Your task to perform on an android device: What's the weather going to be tomorrow? Image 0: 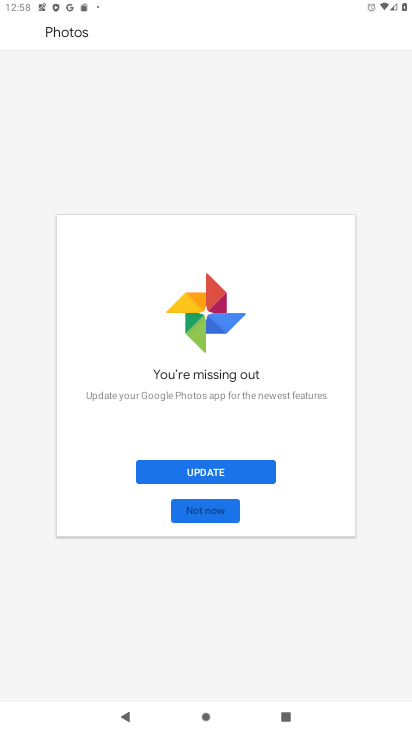
Step 0: press home button
Your task to perform on an android device: What's the weather going to be tomorrow? Image 1: 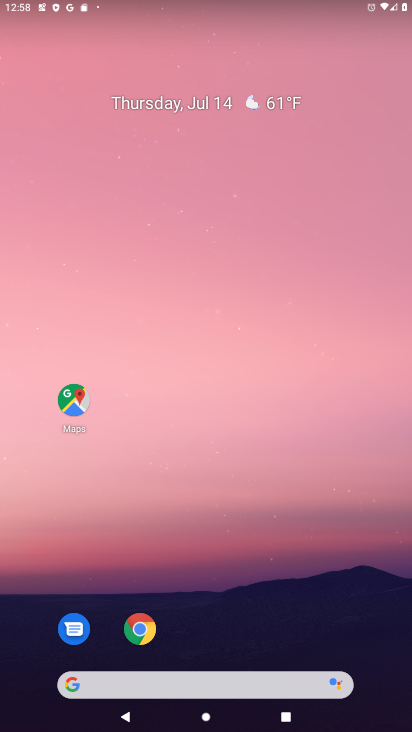
Step 1: click (285, 97)
Your task to perform on an android device: What's the weather going to be tomorrow? Image 2: 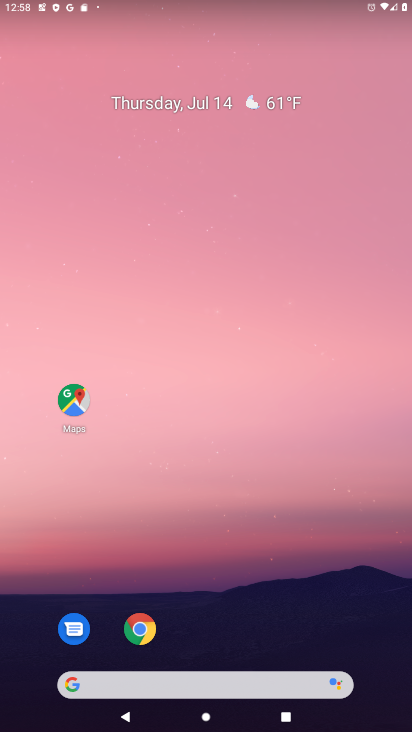
Step 2: click (285, 97)
Your task to perform on an android device: What's the weather going to be tomorrow? Image 3: 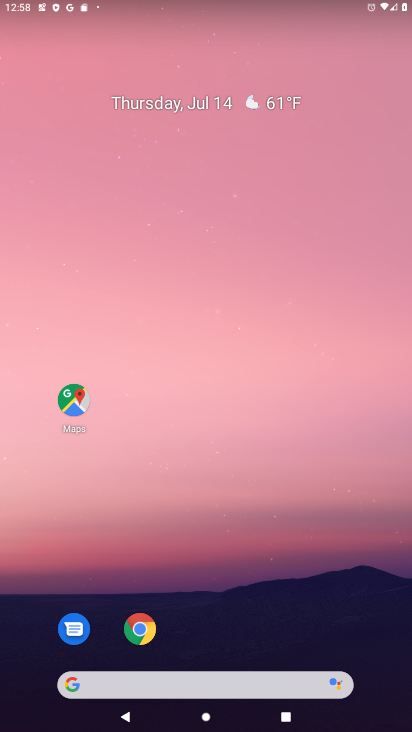
Step 3: click (292, 106)
Your task to perform on an android device: What's the weather going to be tomorrow? Image 4: 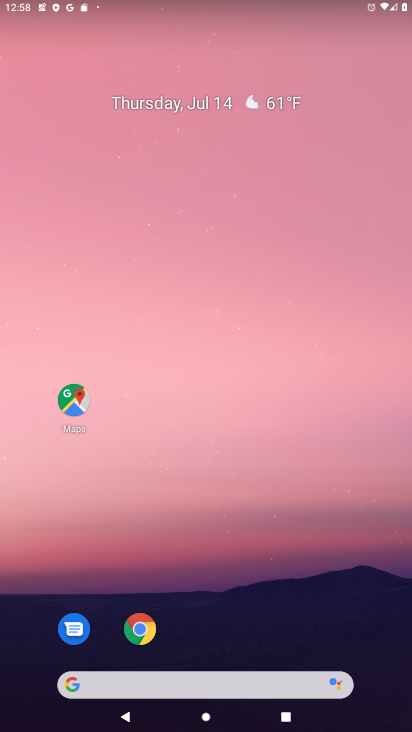
Step 4: click (292, 106)
Your task to perform on an android device: What's the weather going to be tomorrow? Image 5: 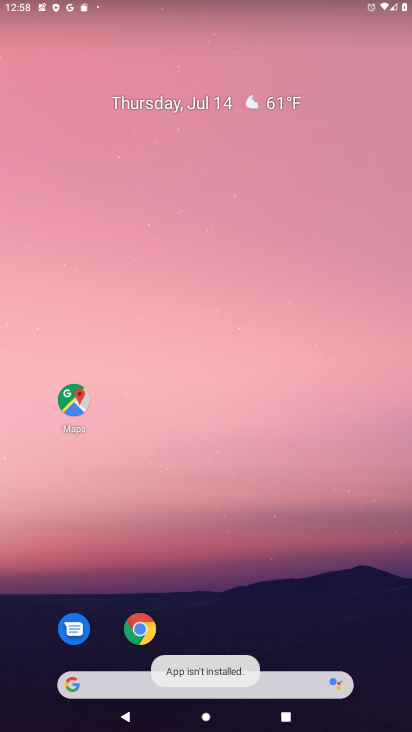
Step 5: click (292, 106)
Your task to perform on an android device: What's the weather going to be tomorrow? Image 6: 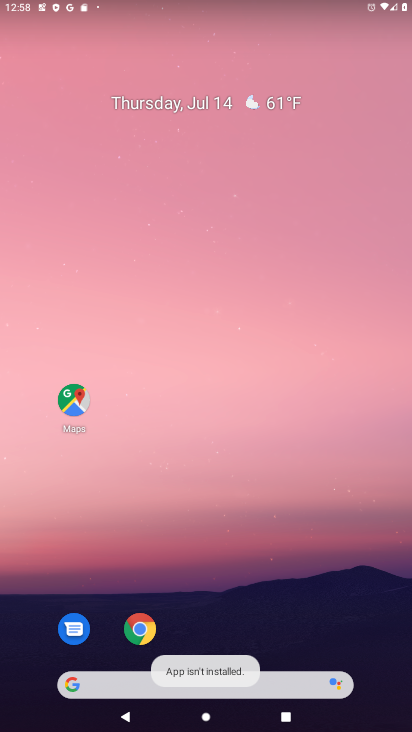
Step 6: click (292, 106)
Your task to perform on an android device: What's the weather going to be tomorrow? Image 7: 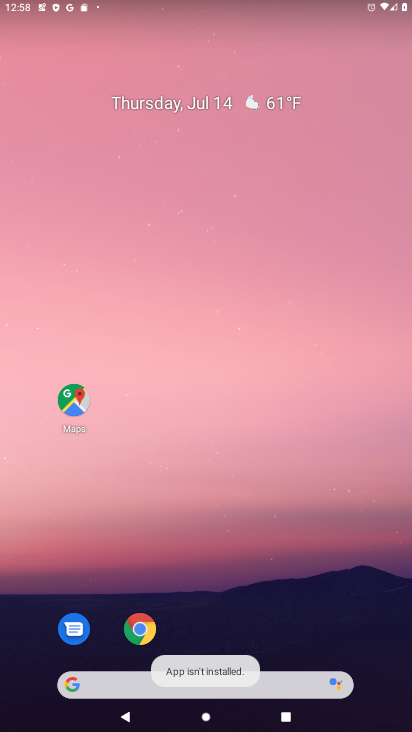
Step 7: click (292, 106)
Your task to perform on an android device: What's the weather going to be tomorrow? Image 8: 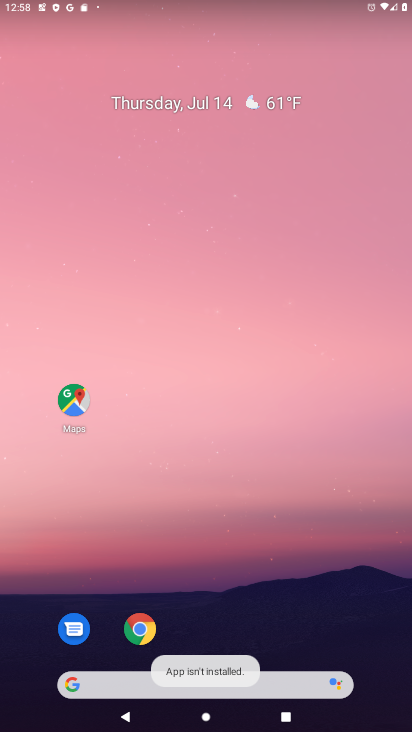
Step 8: click (143, 681)
Your task to perform on an android device: What's the weather going to be tomorrow? Image 9: 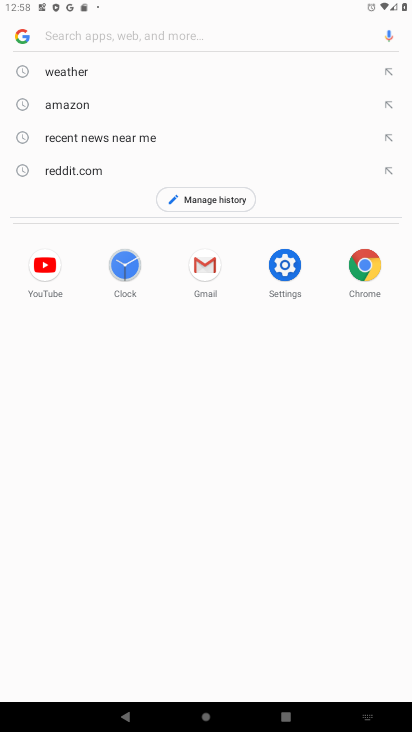
Step 9: click (83, 77)
Your task to perform on an android device: What's the weather going to be tomorrow? Image 10: 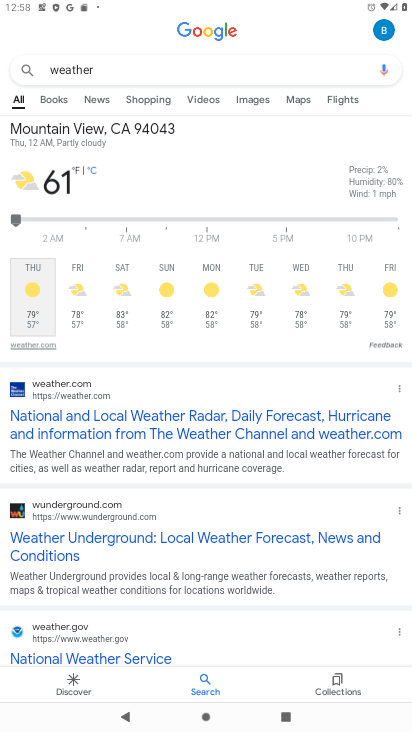
Step 10: click (85, 291)
Your task to perform on an android device: What's the weather going to be tomorrow? Image 11: 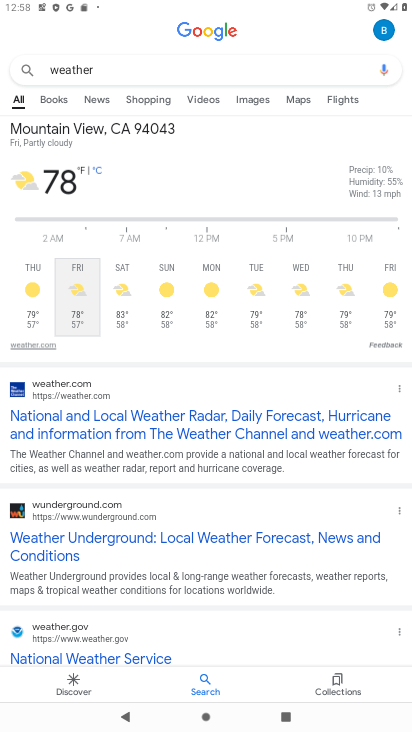
Step 11: task complete